Your task to perform on an android device: What is the capital of Japan? Image 0: 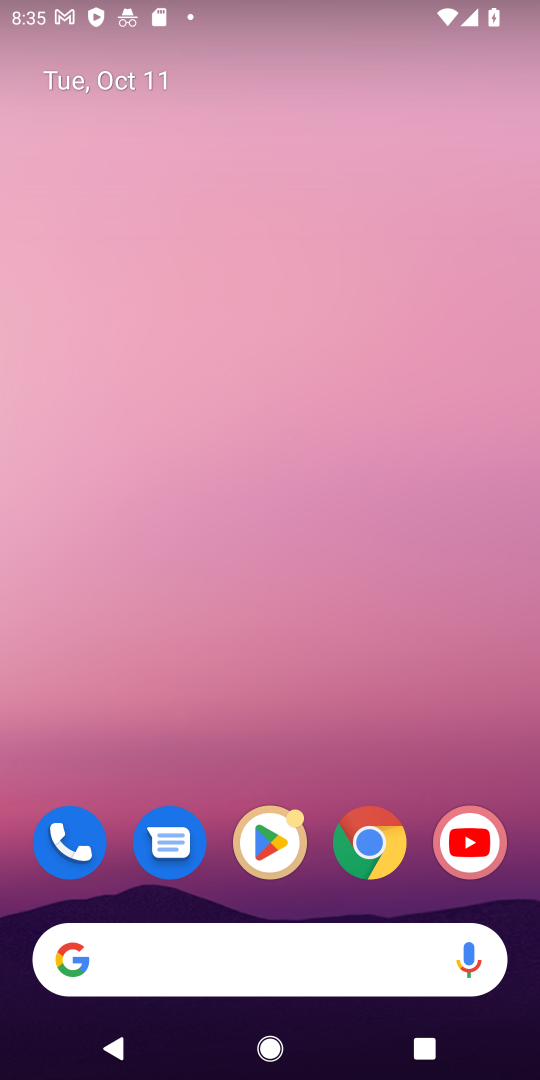
Step 0: click (213, 965)
Your task to perform on an android device: What is the capital of Japan? Image 1: 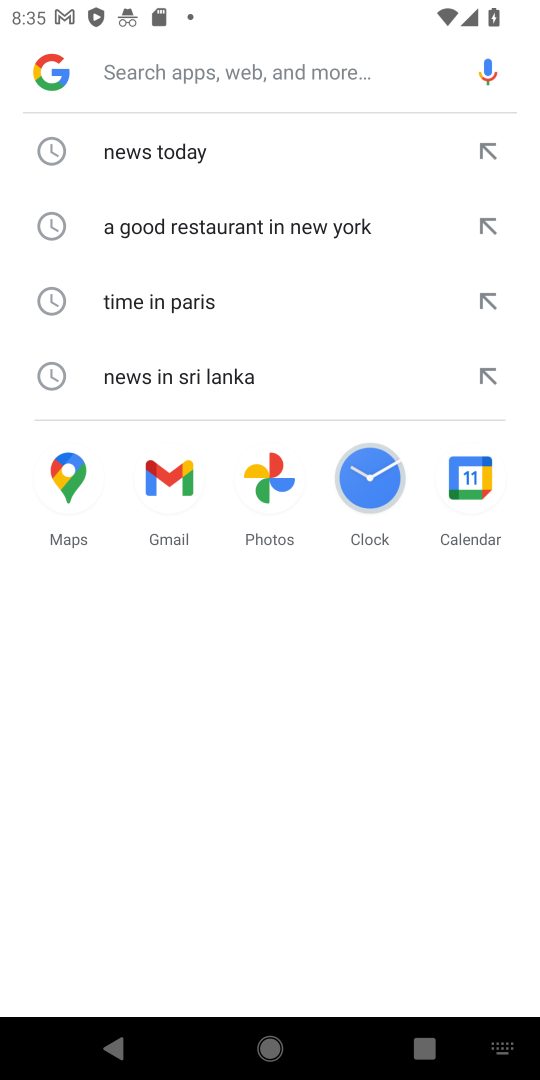
Step 1: type "What is the capital of Japan?"
Your task to perform on an android device: What is the capital of Japan? Image 2: 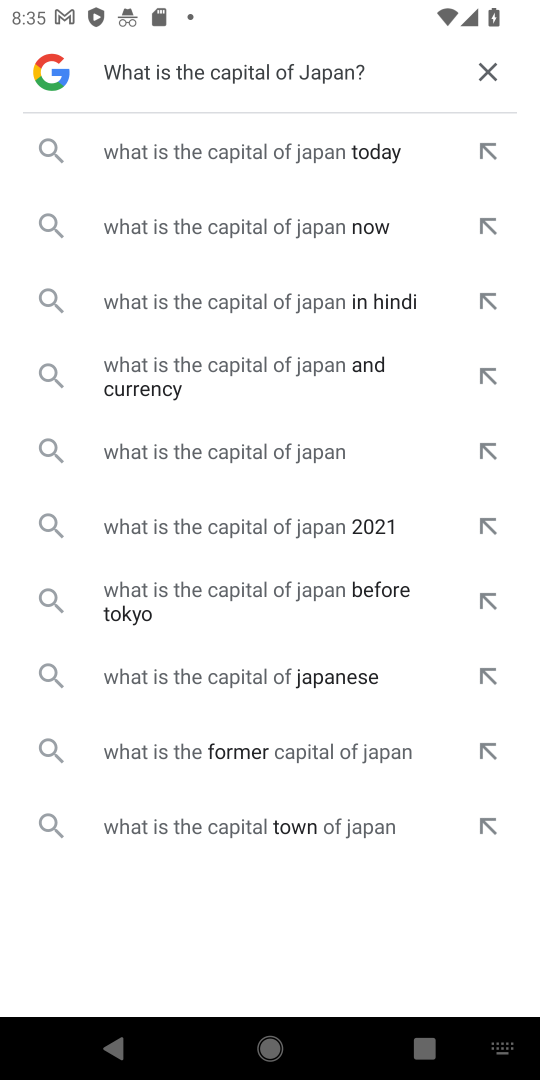
Step 2: click (316, 151)
Your task to perform on an android device: What is the capital of Japan? Image 3: 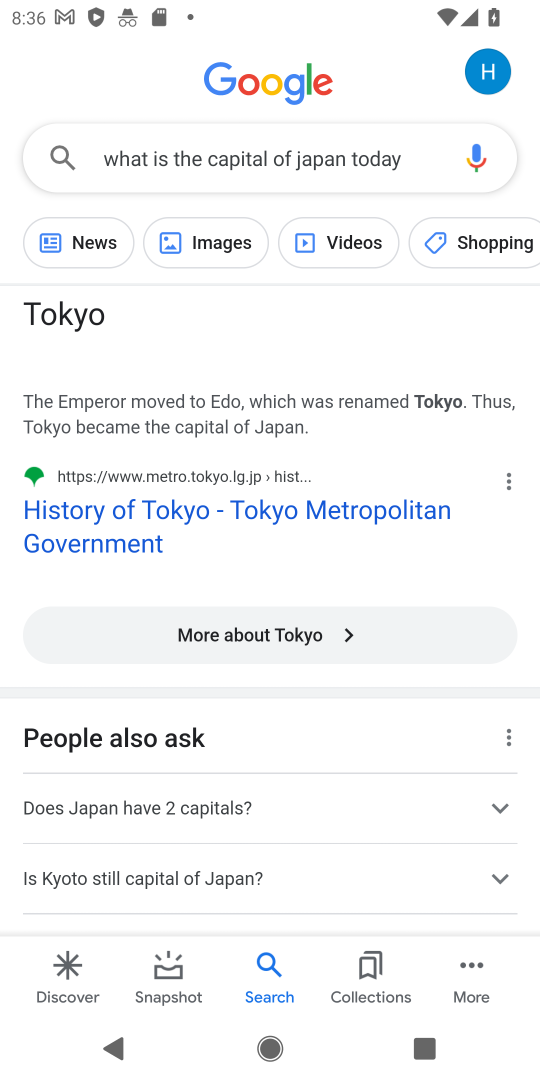
Step 3: task complete